Your task to perform on an android device: turn on translation in the chrome app Image 0: 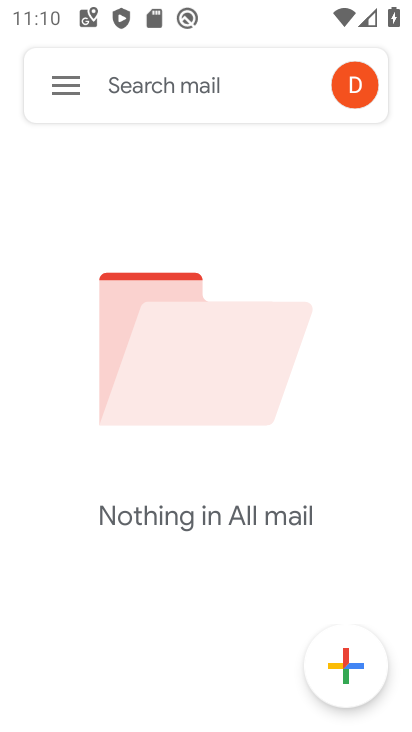
Step 0: press home button
Your task to perform on an android device: turn on translation in the chrome app Image 1: 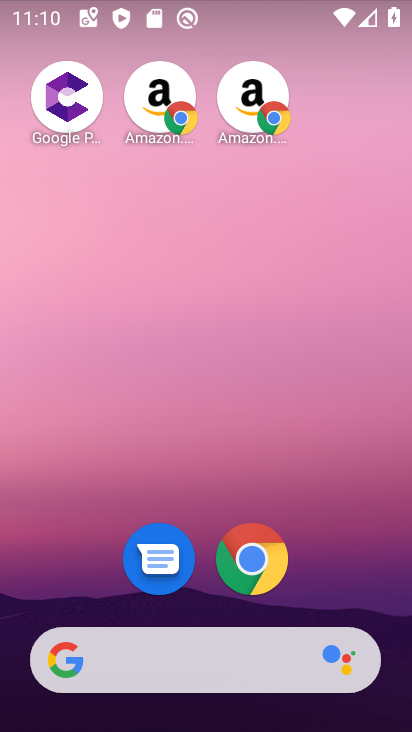
Step 1: drag from (43, 340) to (406, 473)
Your task to perform on an android device: turn on translation in the chrome app Image 2: 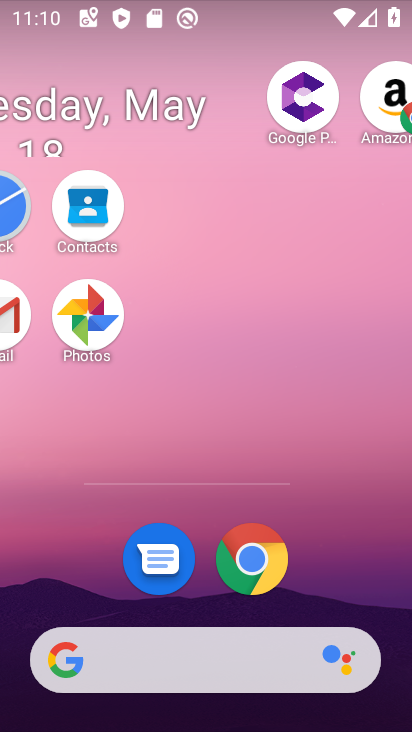
Step 2: click (268, 551)
Your task to perform on an android device: turn on translation in the chrome app Image 3: 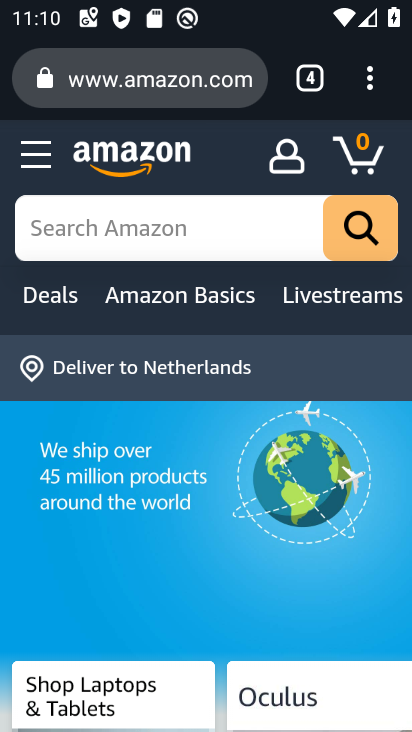
Step 3: click (389, 87)
Your task to perform on an android device: turn on translation in the chrome app Image 4: 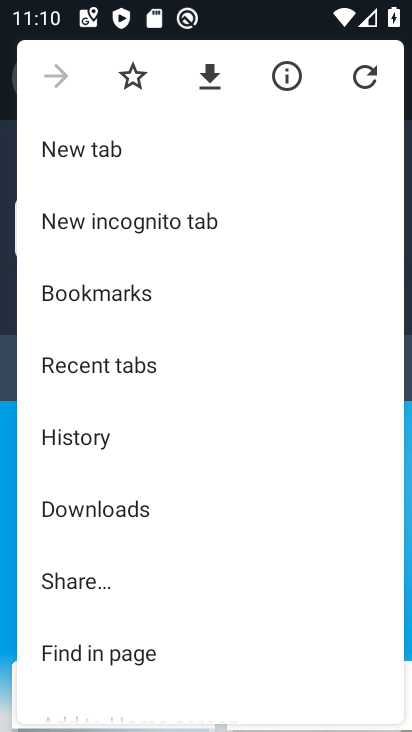
Step 4: drag from (244, 564) to (294, 245)
Your task to perform on an android device: turn on translation in the chrome app Image 5: 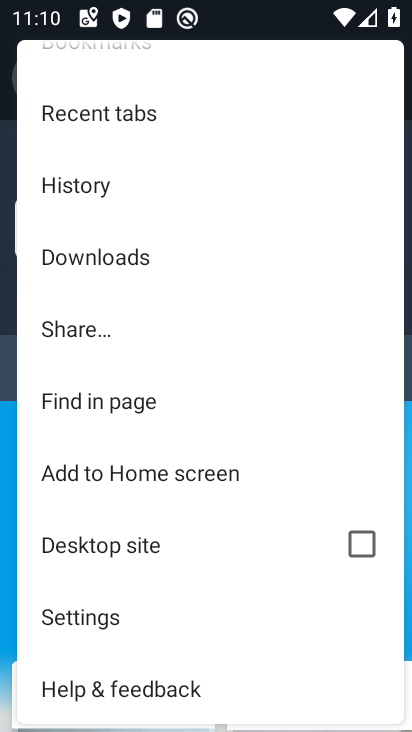
Step 5: click (187, 630)
Your task to perform on an android device: turn on translation in the chrome app Image 6: 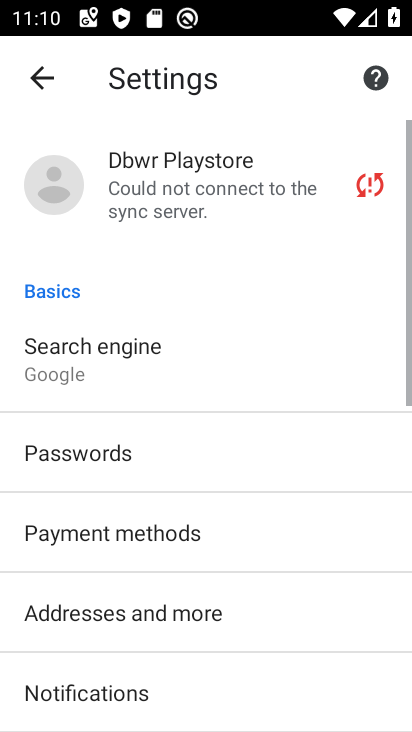
Step 6: drag from (187, 630) to (282, 188)
Your task to perform on an android device: turn on translation in the chrome app Image 7: 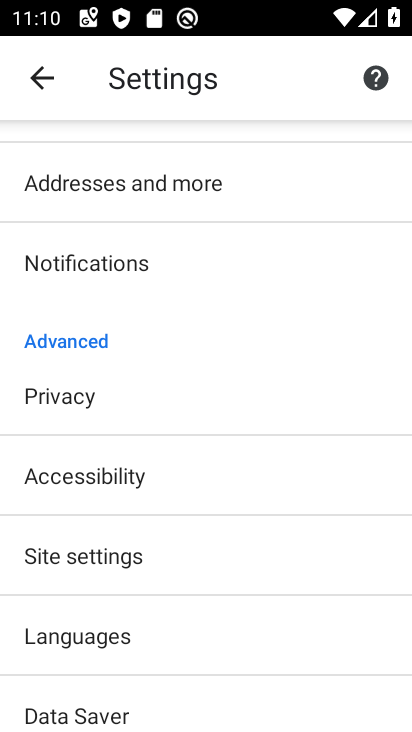
Step 7: drag from (191, 643) to (256, 328)
Your task to perform on an android device: turn on translation in the chrome app Image 8: 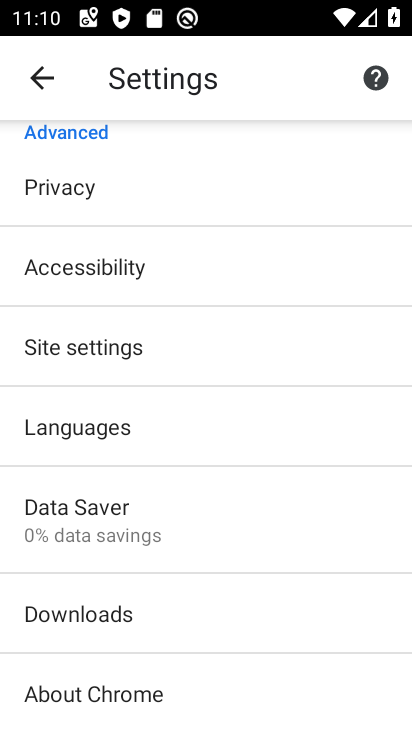
Step 8: click (227, 442)
Your task to perform on an android device: turn on translation in the chrome app Image 9: 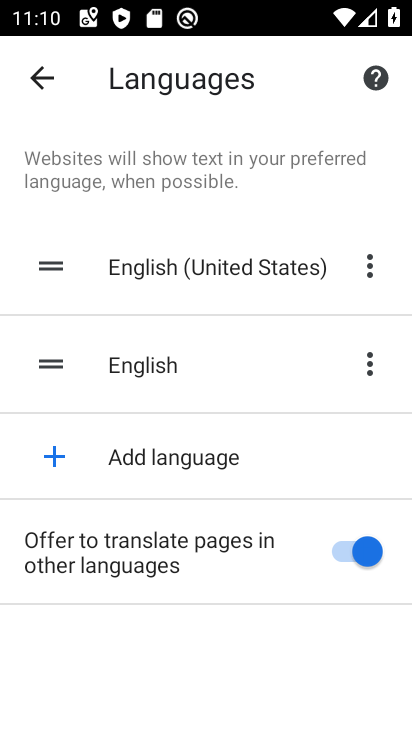
Step 9: task complete